Your task to perform on an android device: open app "Microsoft Outlook" (install if not already installed) and go to login screen Image 0: 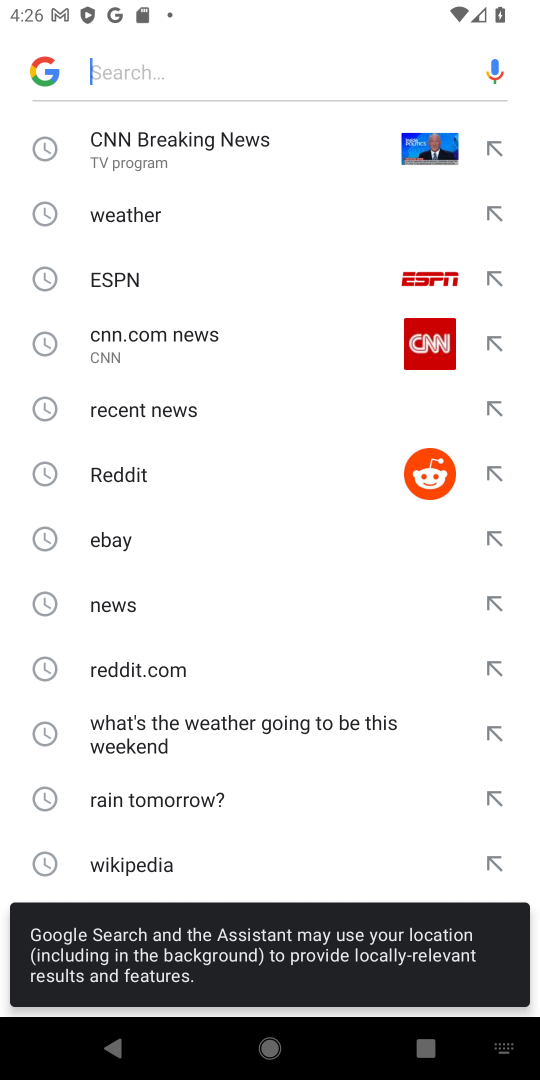
Step 0: press home button
Your task to perform on an android device: open app "Microsoft Outlook" (install if not already installed) and go to login screen Image 1: 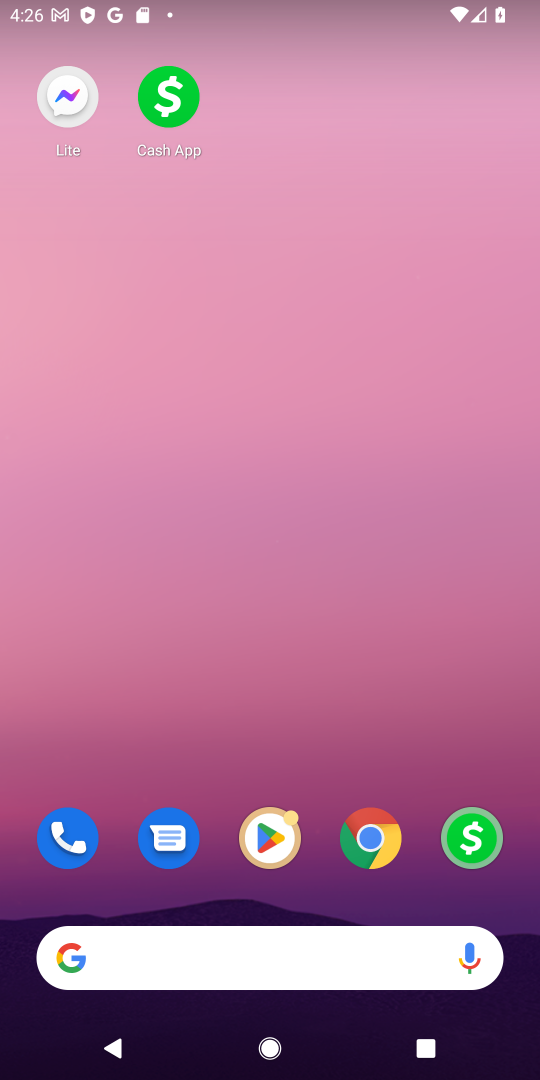
Step 1: drag from (208, 971) to (300, 163)
Your task to perform on an android device: open app "Microsoft Outlook" (install if not already installed) and go to login screen Image 2: 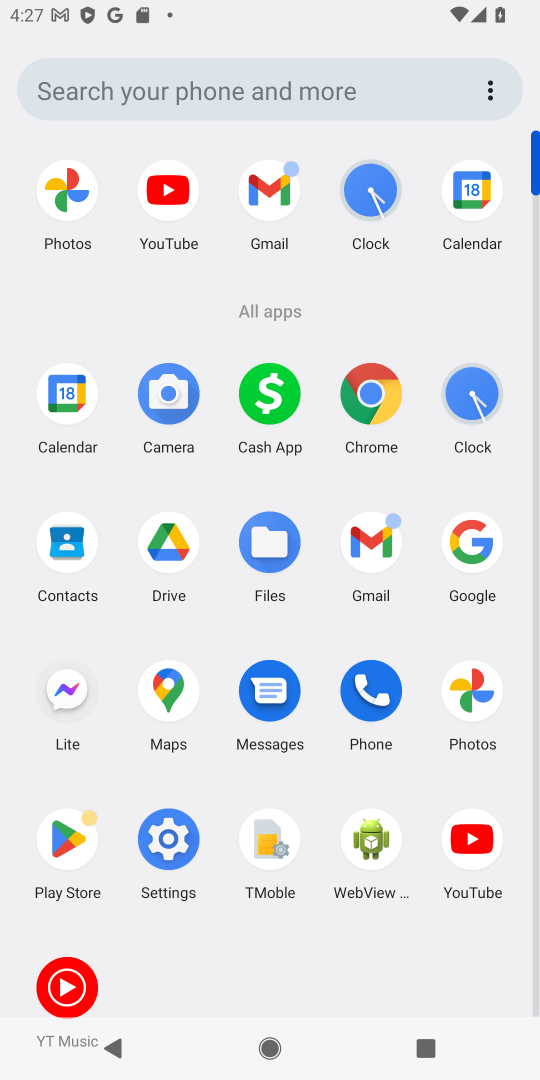
Step 2: click (74, 842)
Your task to perform on an android device: open app "Microsoft Outlook" (install if not already installed) and go to login screen Image 3: 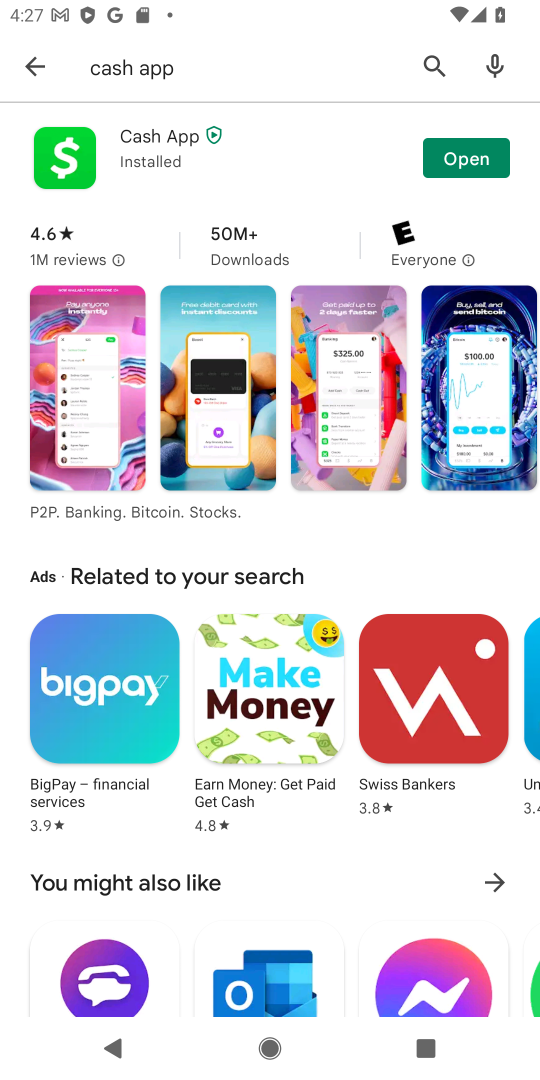
Step 3: press back button
Your task to perform on an android device: open app "Microsoft Outlook" (install if not already installed) and go to login screen Image 4: 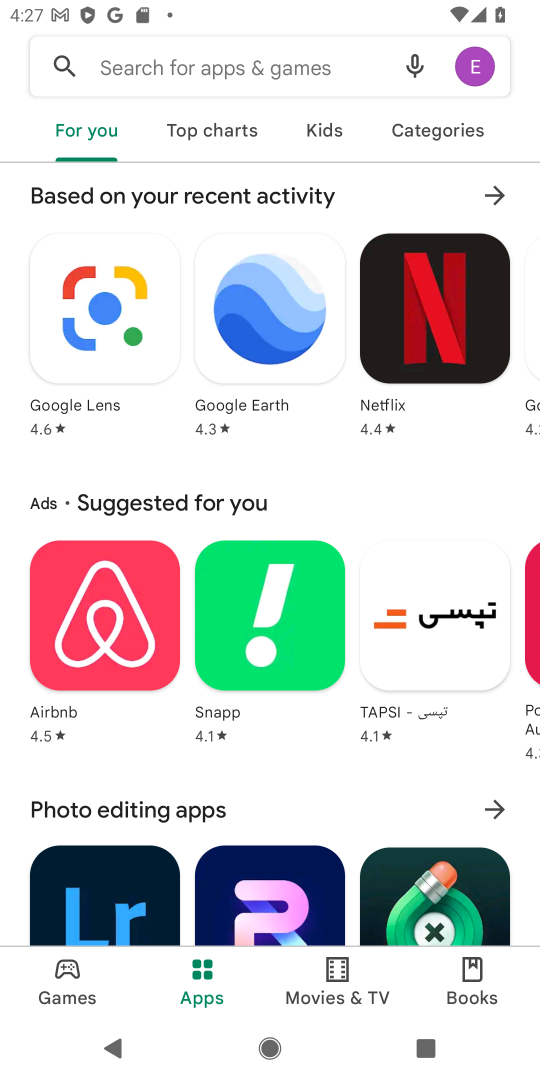
Step 4: click (196, 60)
Your task to perform on an android device: open app "Microsoft Outlook" (install if not already installed) and go to login screen Image 5: 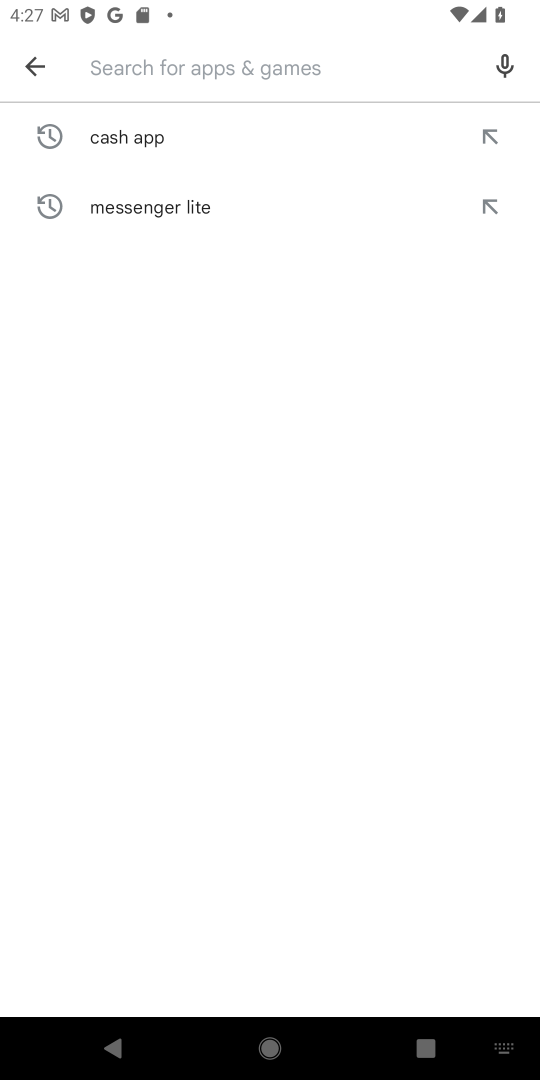
Step 5: type "Microsoft Outlook"
Your task to perform on an android device: open app "Microsoft Outlook" (install if not already installed) and go to login screen Image 6: 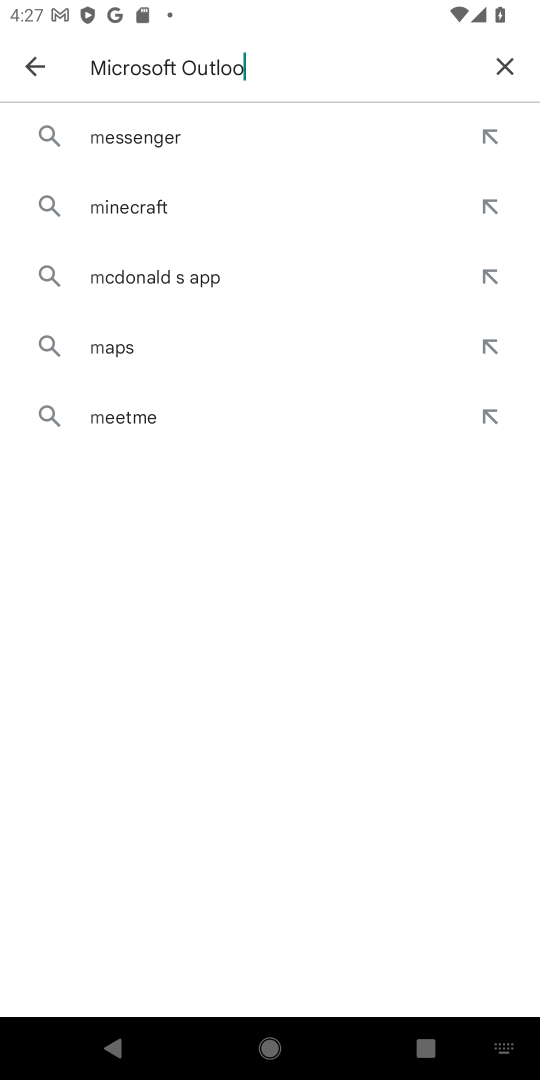
Step 6: type ""
Your task to perform on an android device: open app "Microsoft Outlook" (install if not already installed) and go to login screen Image 7: 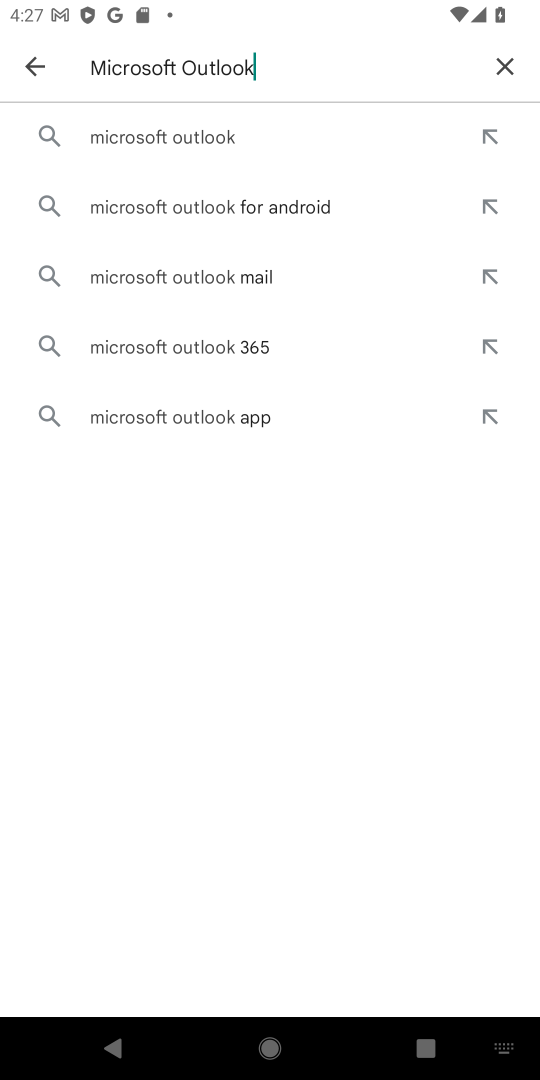
Step 7: click (207, 132)
Your task to perform on an android device: open app "Microsoft Outlook" (install if not already installed) and go to login screen Image 8: 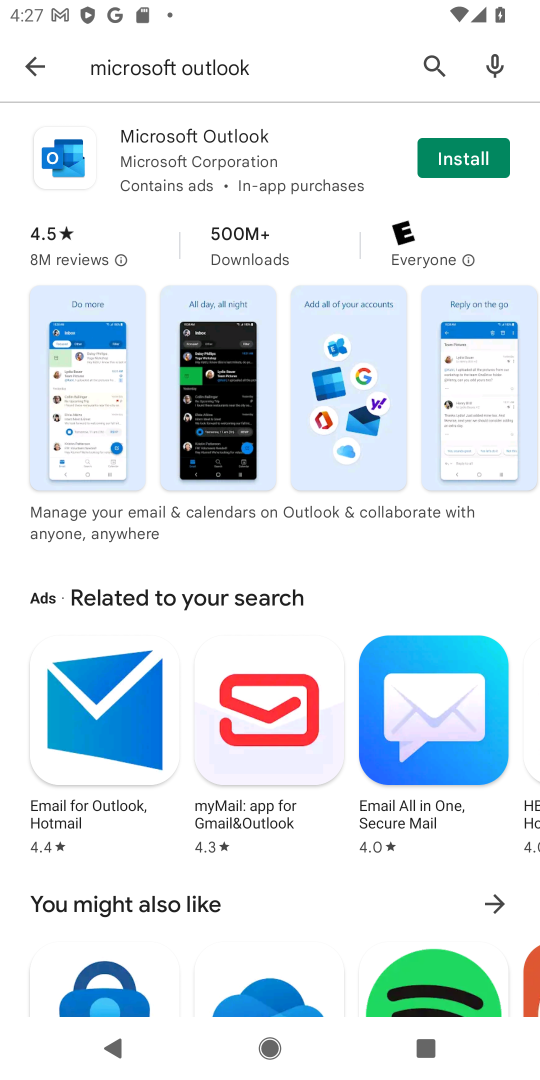
Step 8: click (465, 154)
Your task to perform on an android device: open app "Microsoft Outlook" (install if not already installed) and go to login screen Image 9: 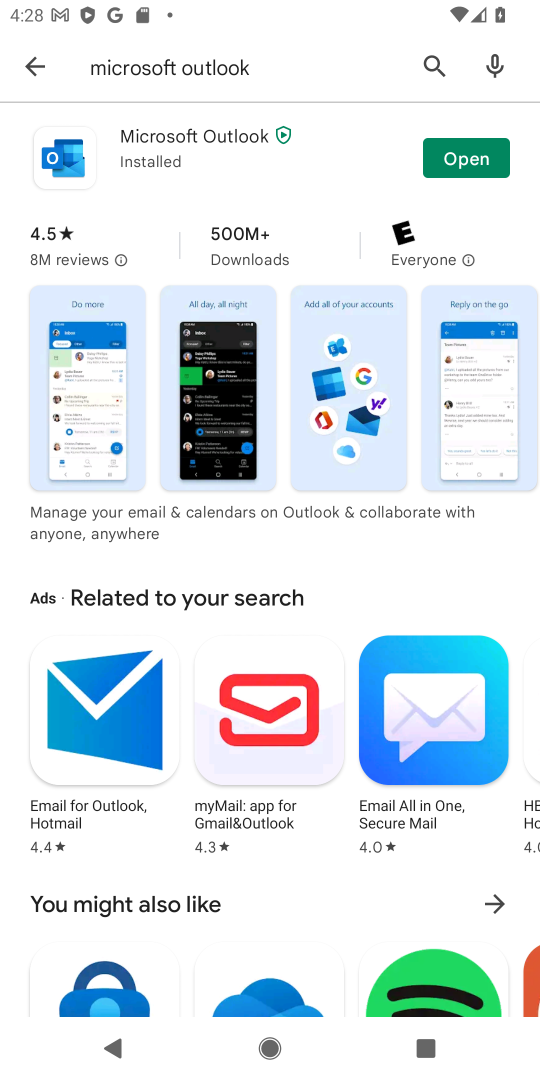
Step 9: click (453, 164)
Your task to perform on an android device: open app "Microsoft Outlook" (install if not already installed) and go to login screen Image 10: 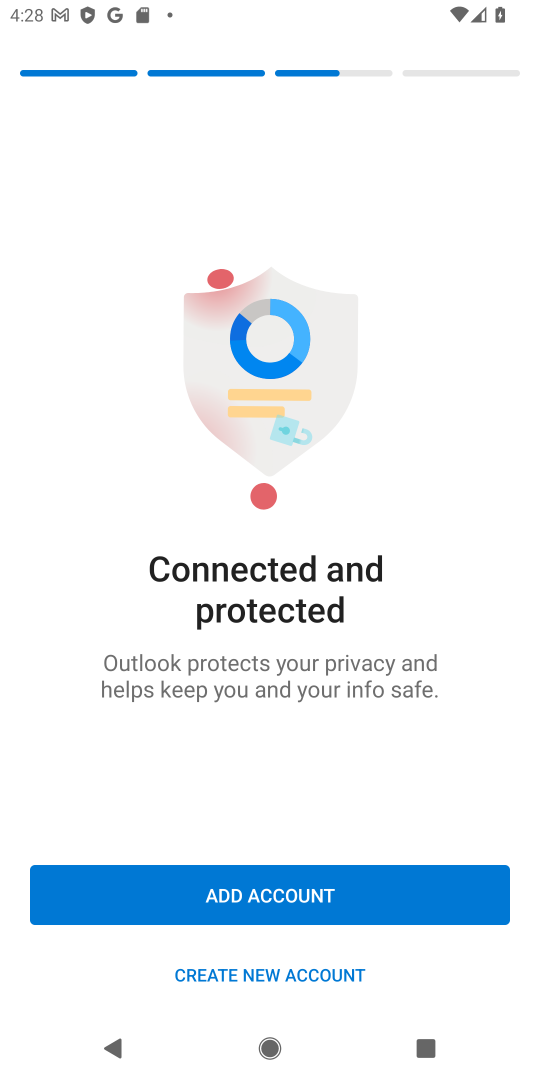
Step 10: click (302, 977)
Your task to perform on an android device: open app "Microsoft Outlook" (install if not already installed) and go to login screen Image 11: 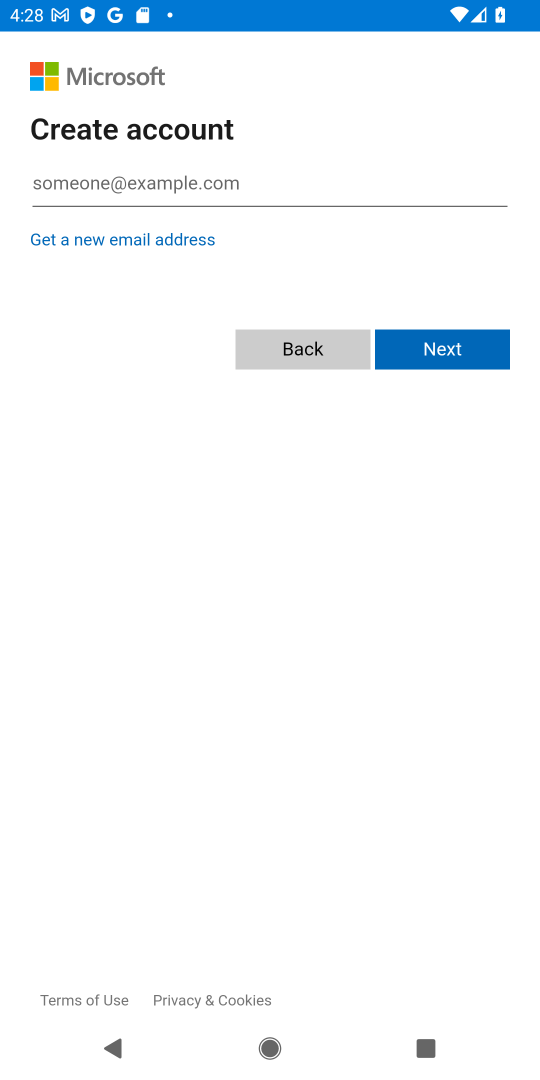
Step 11: task complete